Your task to perform on an android device: turn on javascript in the chrome app Image 0: 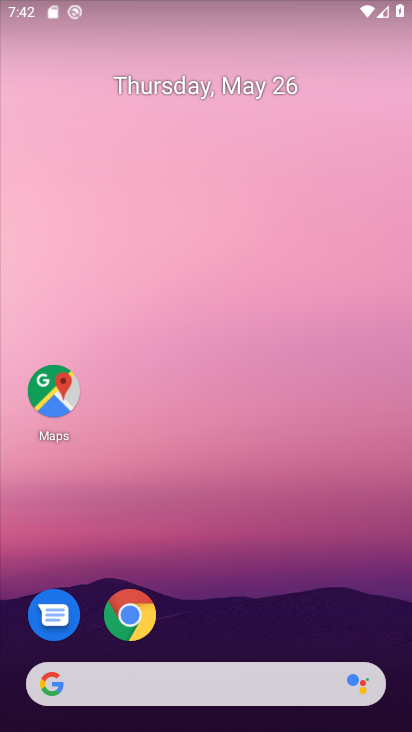
Step 0: click (123, 611)
Your task to perform on an android device: turn on javascript in the chrome app Image 1: 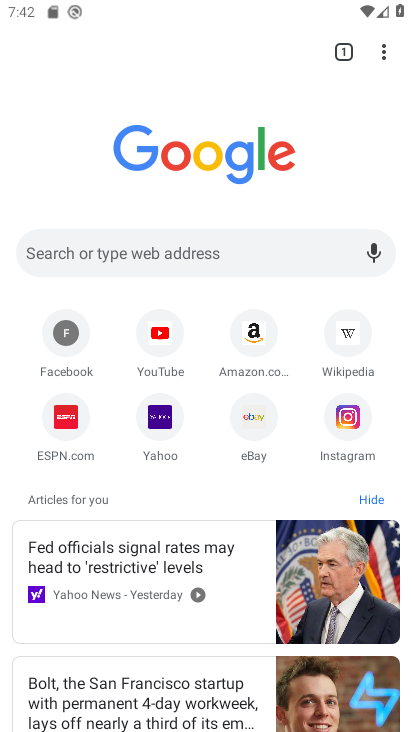
Step 1: click (383, 56)
Your task to perform on an android device: turn on javascript in the chrome app Image 2: 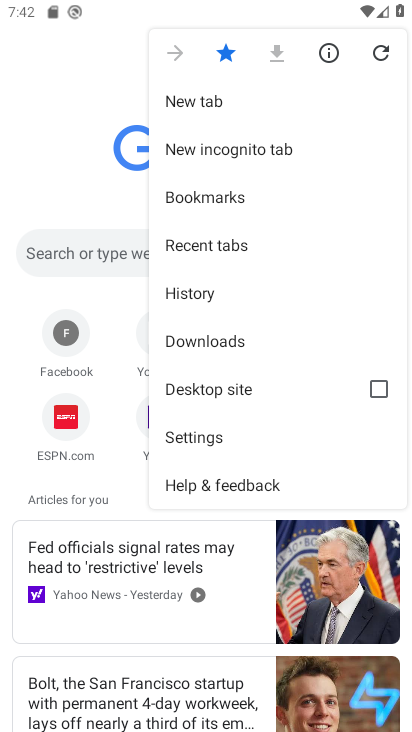
Step 2: click (245, 431)
Your task to perform on an android device: turn on javascript in the chrome app Image 3: 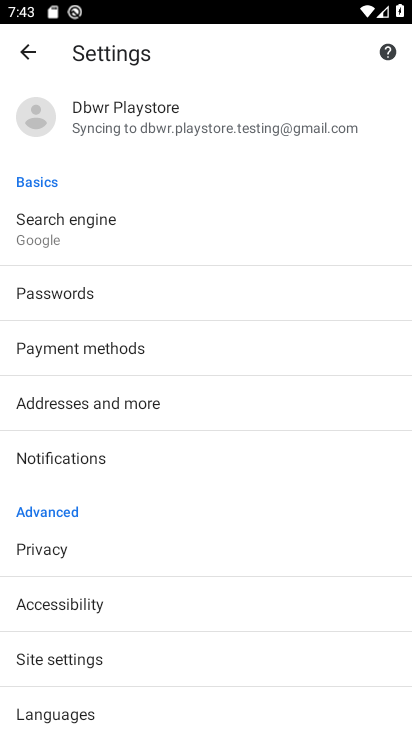
Step 3: drag from (181, 586) to (237, 246)
Your task to perform on an android device: turn on javascript in the chrome app Image 4: 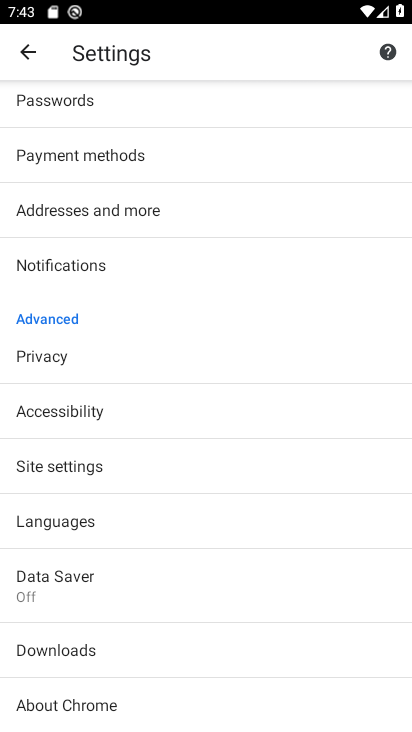
Step 4: click (114, 453)
Your task to perform on an android device: turn on javascript in the chrome app Image 5: 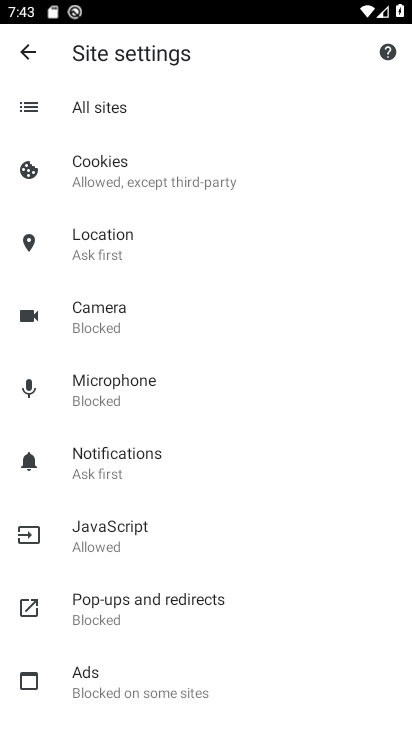
Step 5: click (152, 544)
Your task to perform on an android device: turn on javascript in the chrome app Image 6: 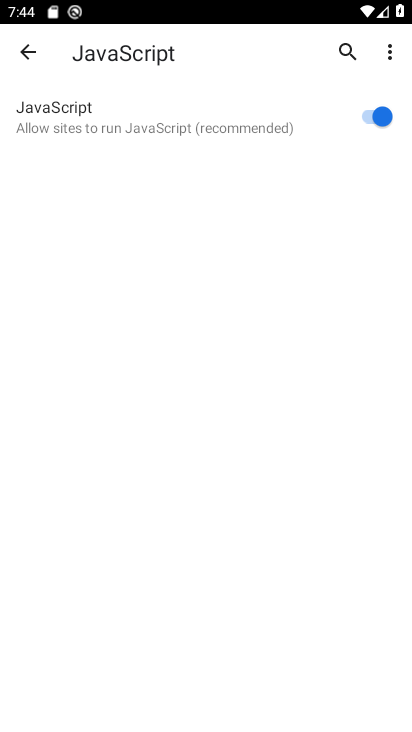
Step 6: task complete